Your task to perform on an android device: install app "Booking.com: Hotels and more" Image 0: 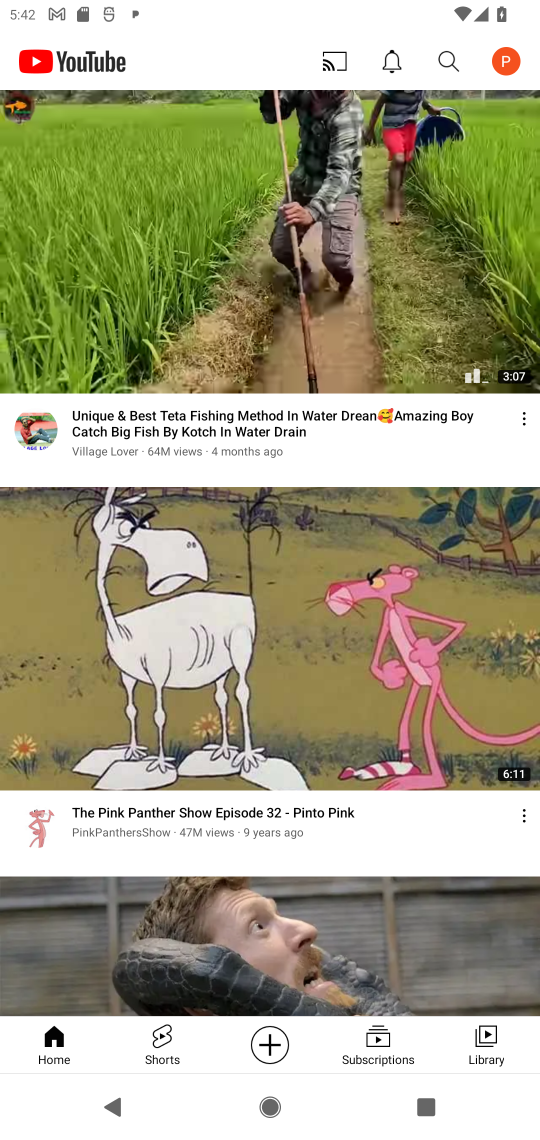
Step 0: press home button
Your task to perform on an android device: install app "Booking.com: Hotels and more" Image 1: 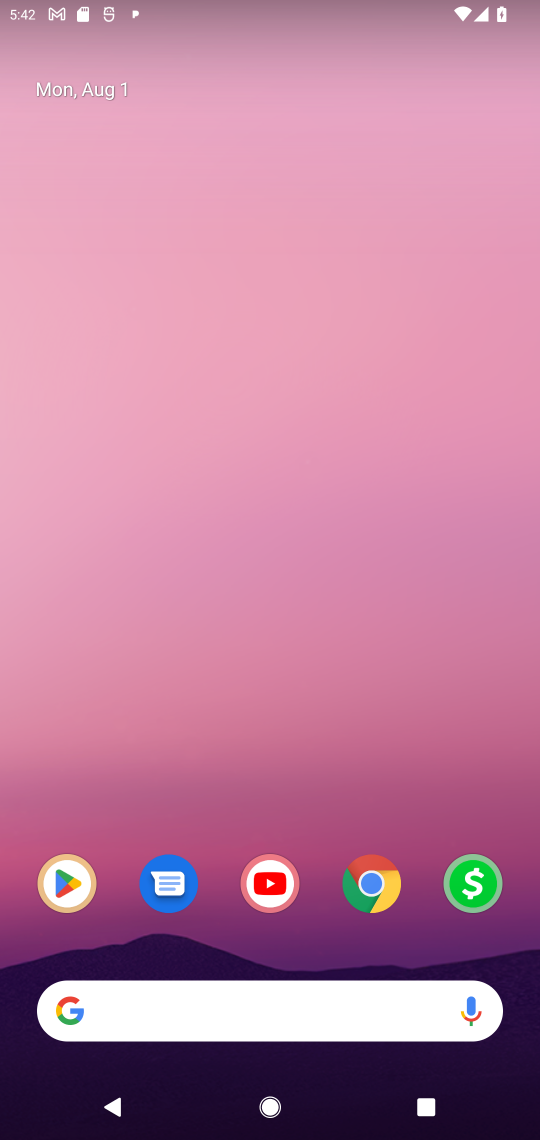
Step 1: click (53, 889)
Your task to perform on an android device: install app "Booking.com: Hotels and more" Image 2: 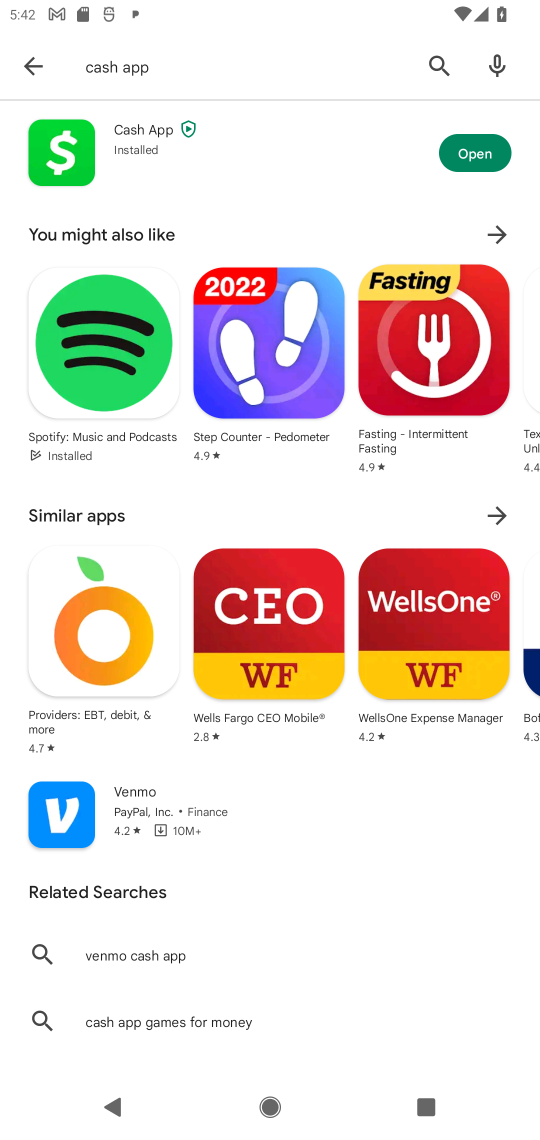
Step 2: click (24, 68)
Your task to perform on an android device: install app "Booking.com: Hotels and more" Image 3: 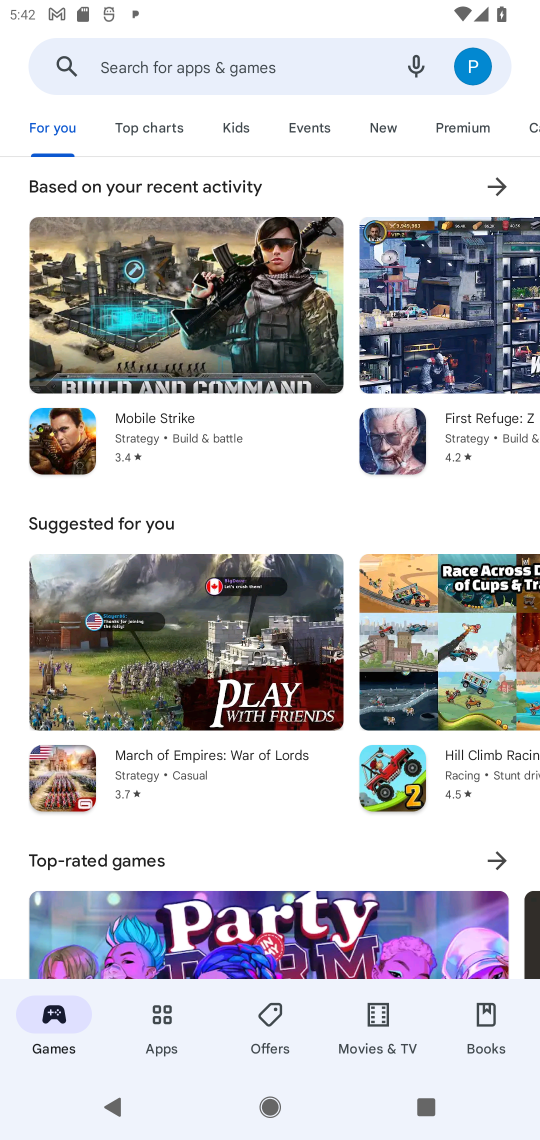
Step 3: click (214, 75)
Your task to perform on an android device: install app "Booking.com: Hotels and more" Image 4: 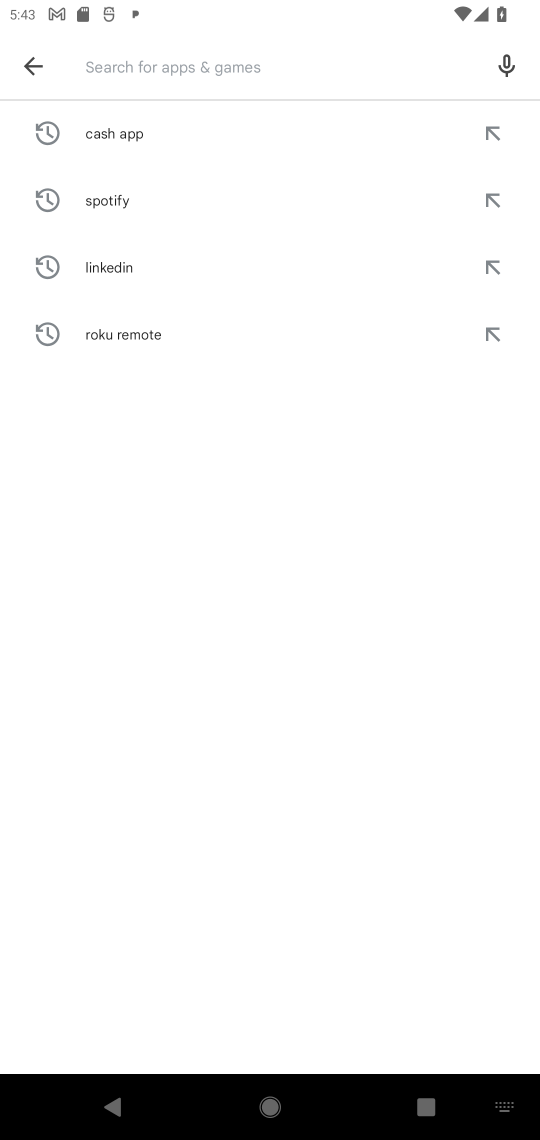
Step 4: type "Booking.com: Hotels and more"
Your task to perform on an android device: install app "Booking.com: Hotels and more" Image 5: 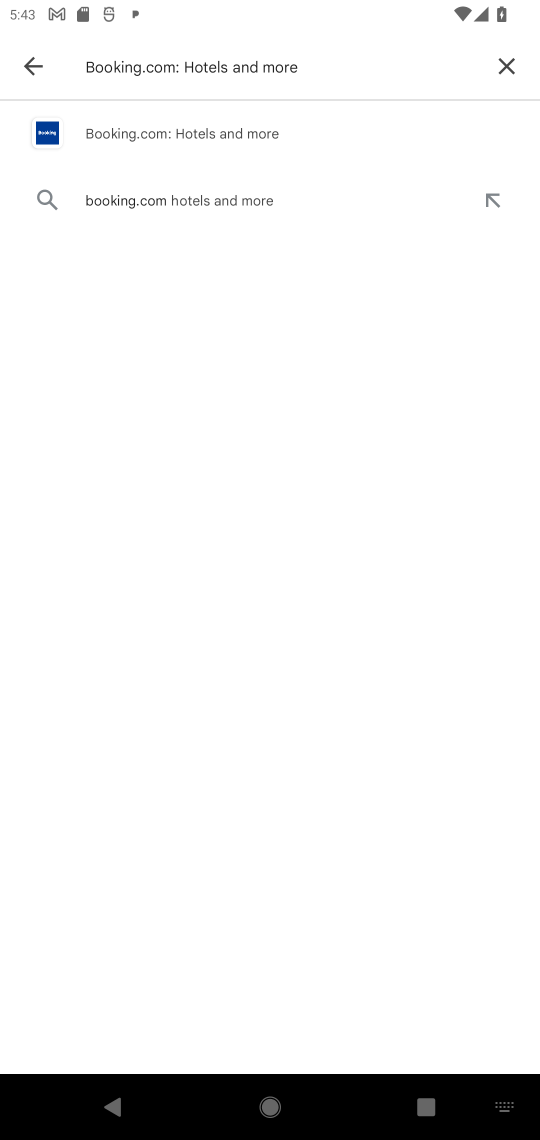
Step 5: click (214, 140)
Your task to perform on an android device: install app "Booking.com: Hotels and more" Image 6: 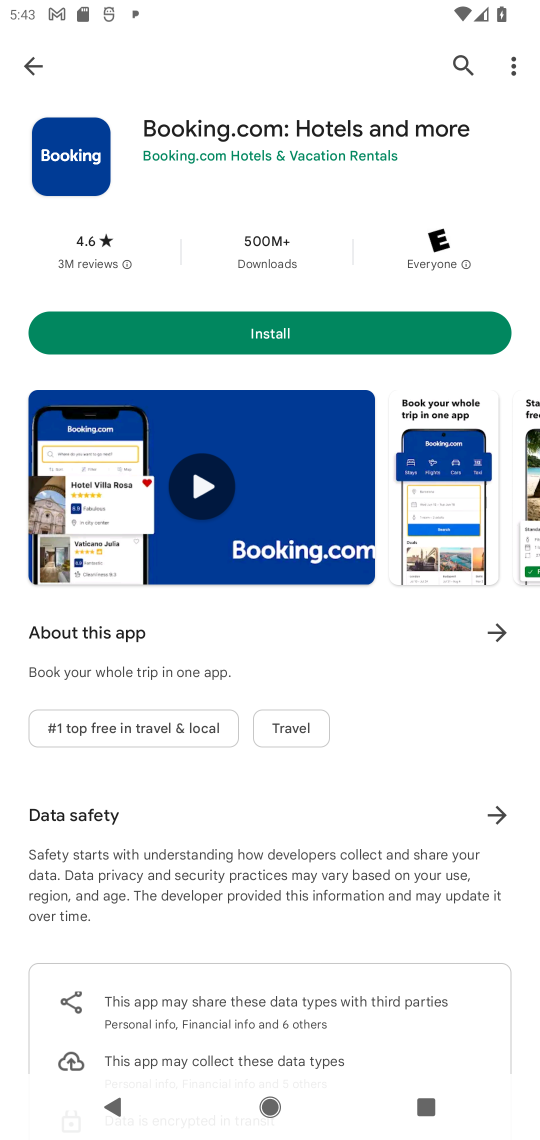
Step 6: click (279, 338)
Your task to perform on an android device: install app "Booking.com: Hotels and more" Image 7: 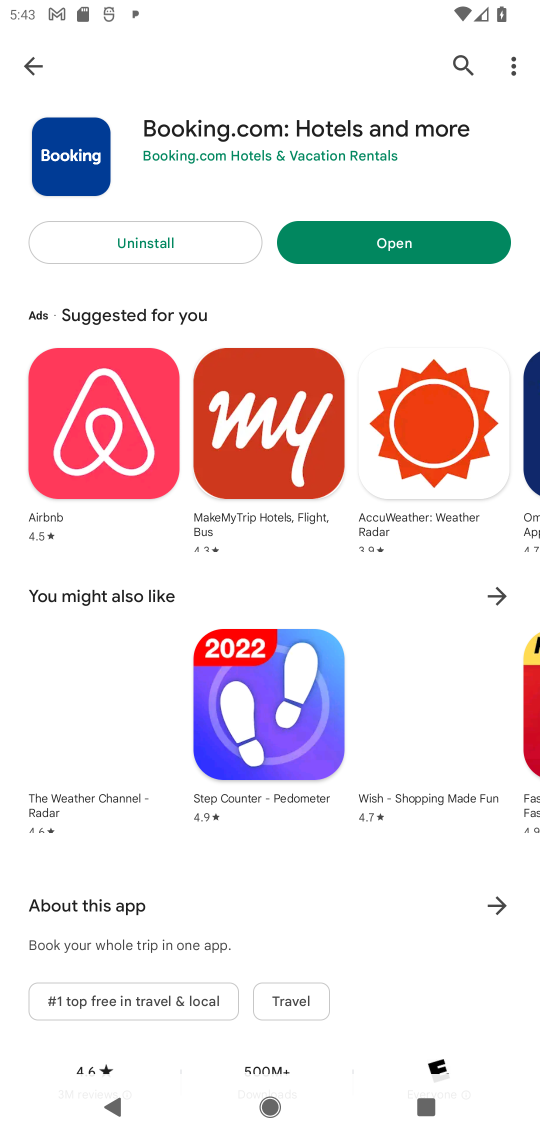
Step 7: click (408, 246)
Your task to perform on an android device: install app "Booking.com: Hotels and more" Image 8: 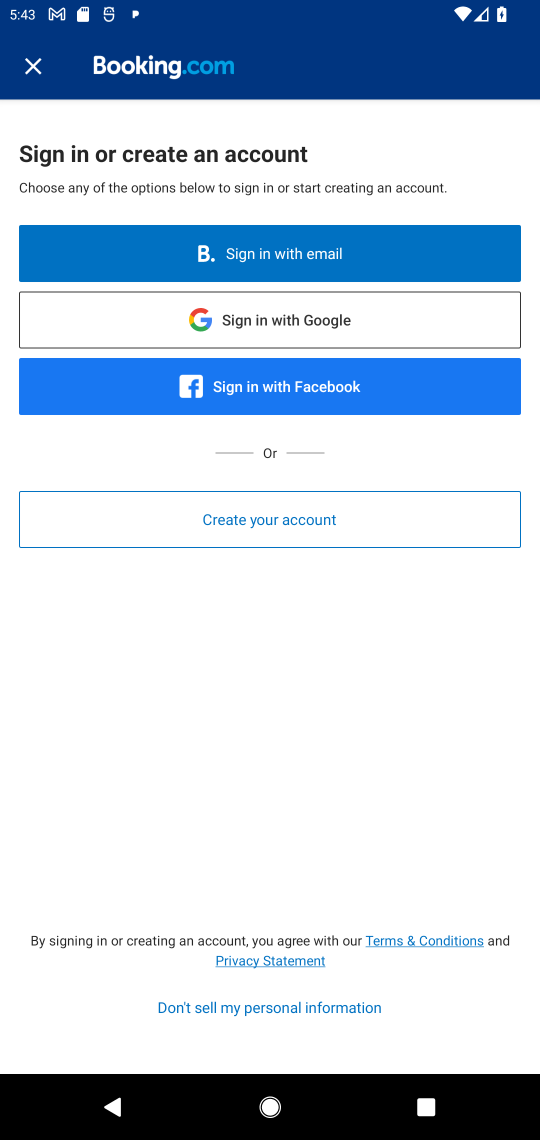
Step 8: task complete